Your task to perform on an android device: Do I have any events this weekend? Image 0: 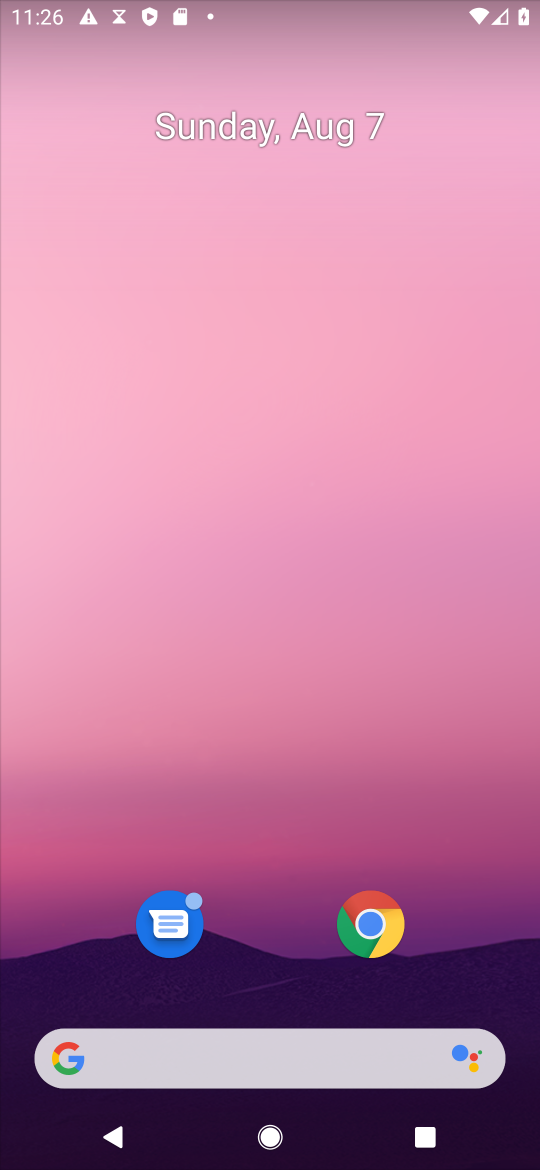
Step 0: drag from (277, 993) to (198, 256)
Your task to perform on an android device: Do I have any events this weekend? Image 1: 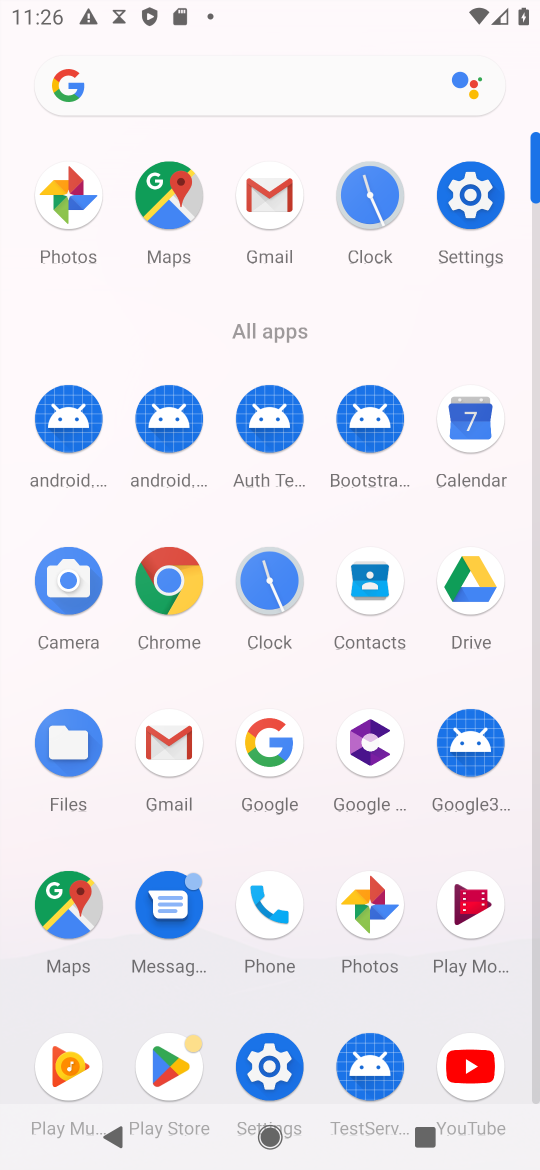
Step 1: click (457, 429)
Your task to perform on an android device: Do I have any events this weekend? Image 2: 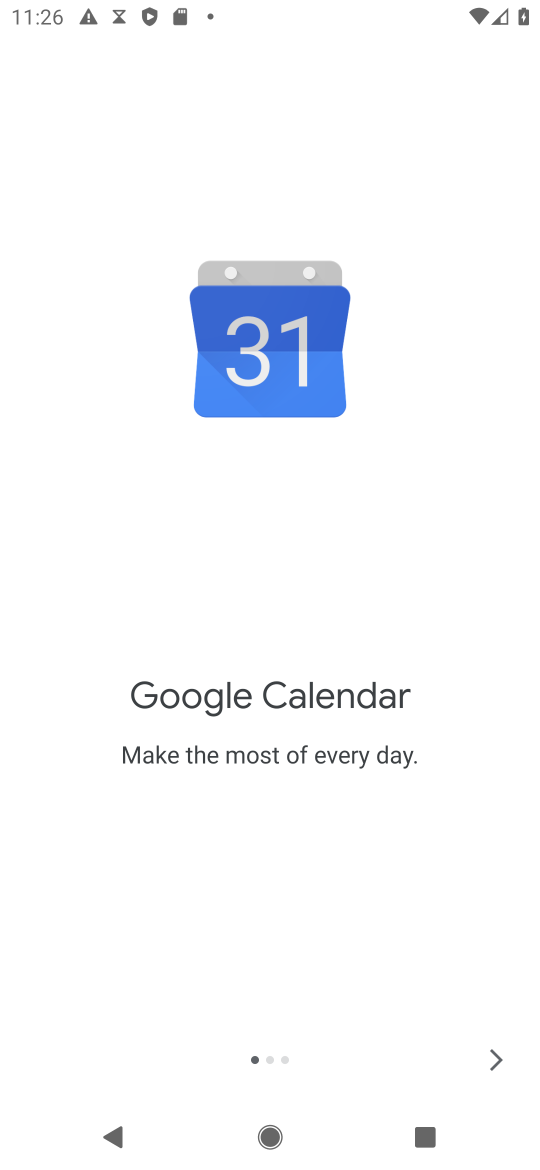
Step 2: click (428, 1052)
Your task to perform on an android device: Do I have any events this weekend? Image 3: 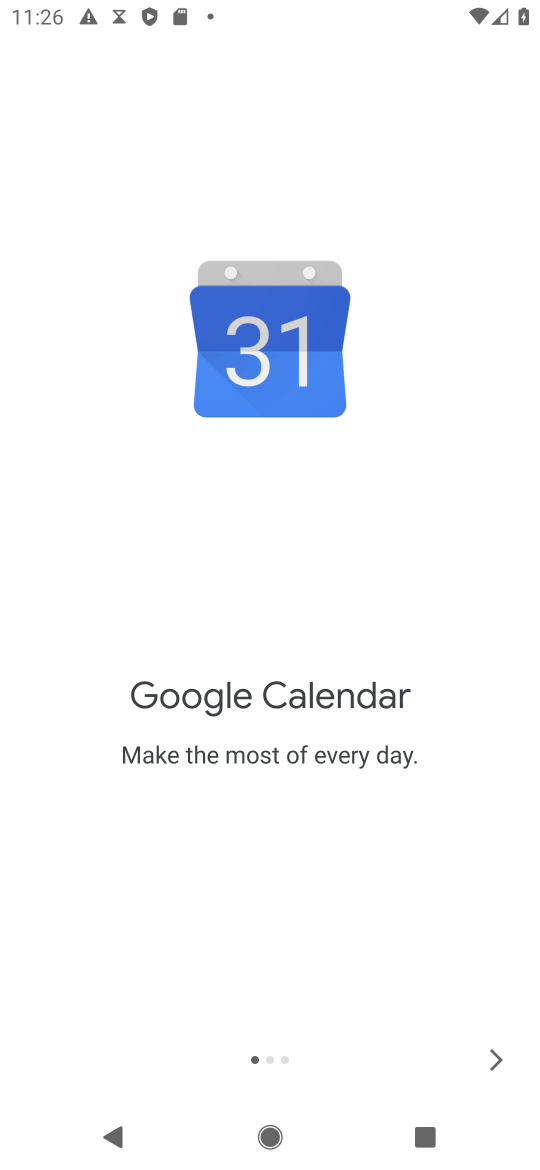
Step 3: click (472, 1058)
Your task to perform on an android device: Do I have any events this weekend? Image 4: 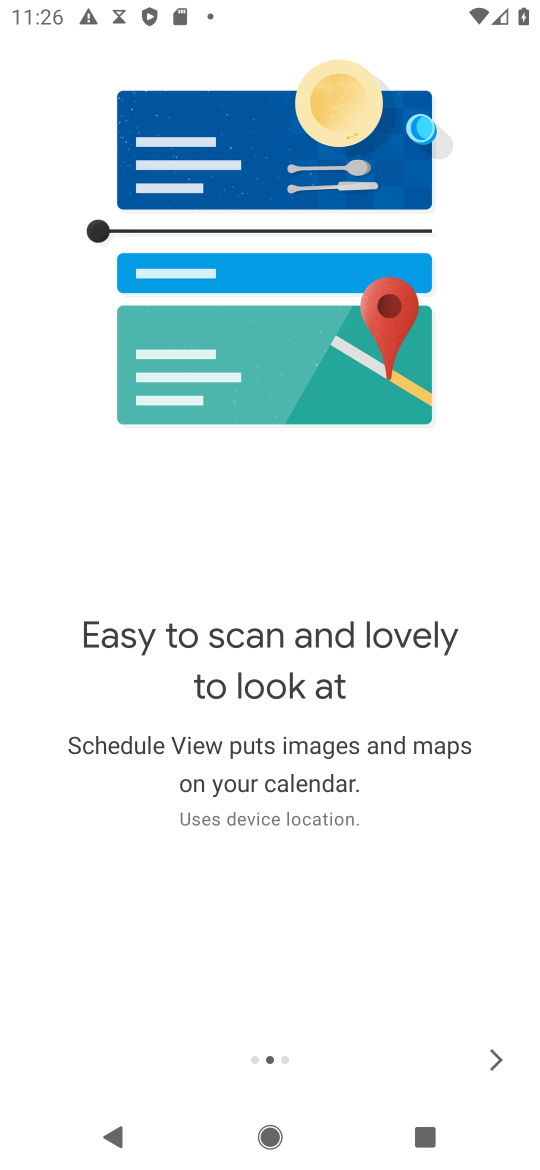
Step 4: click (472, 1058)
Your task to perform on an android device: Do I have any events this weekend? Image 5: 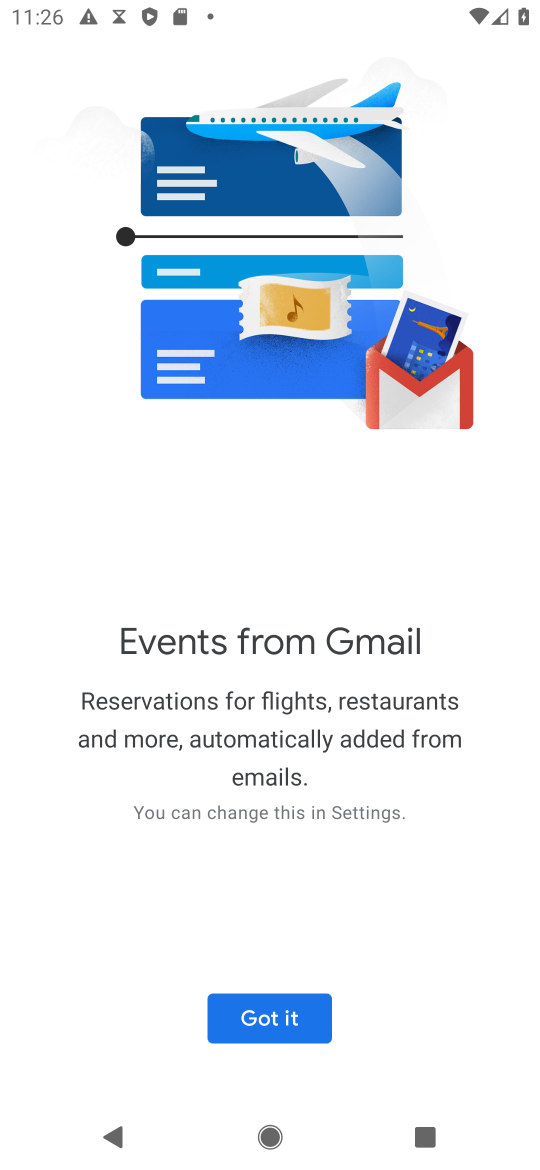
Step 5: click (275, 1032)
Your task to perform on an android device: Do I have any events this weekend? Image 6: 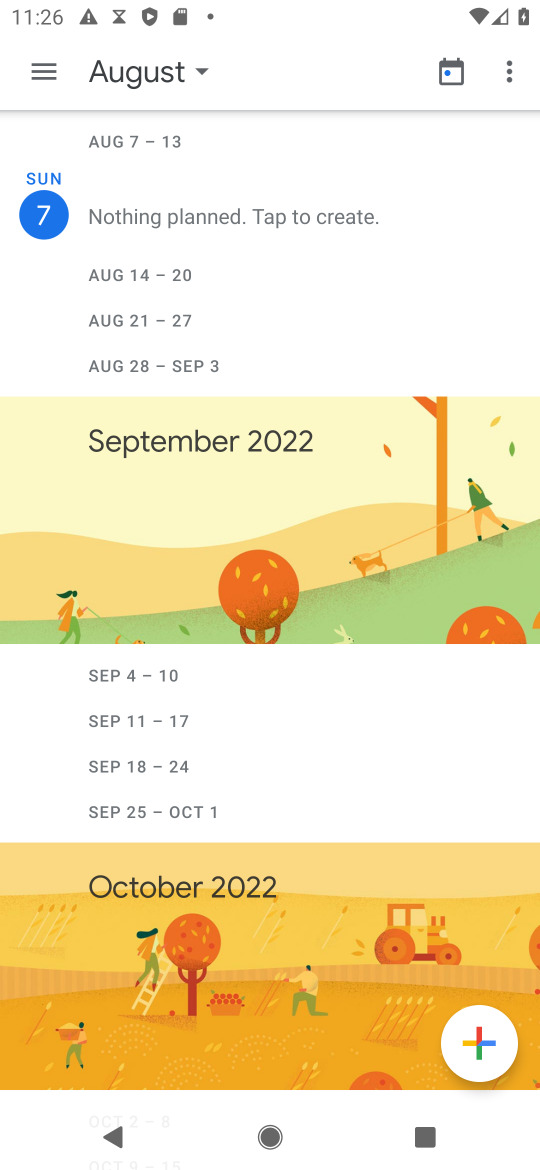
Step 6: click (113, 71)
Your task to perform on an android device: Do I have any events this weekend? Image 7: 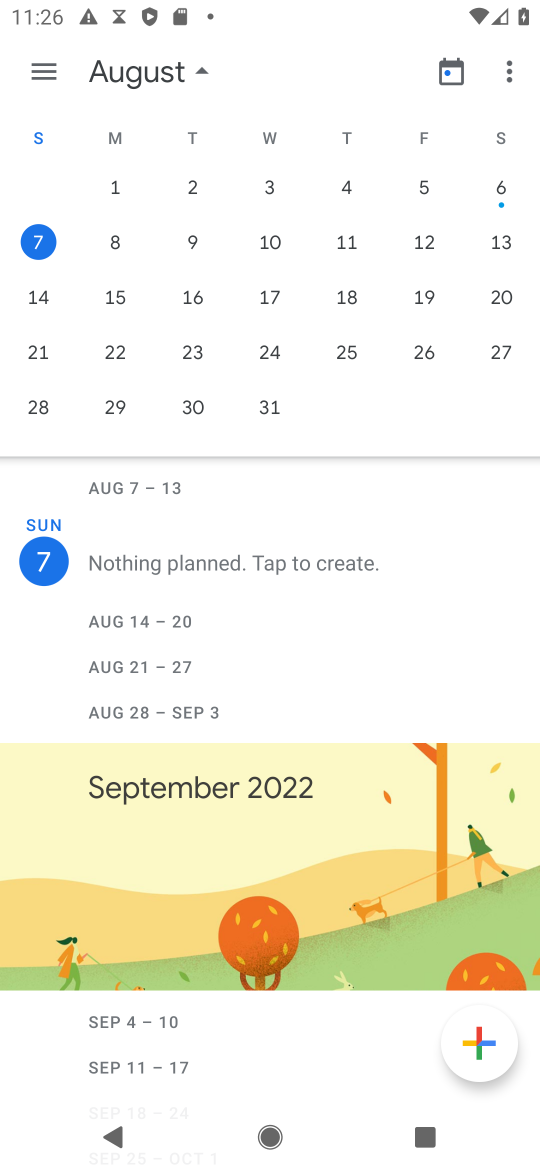
Step 7: task complete